Your task to perform on an android device: choose inbox layout in the gmail app Image 0: 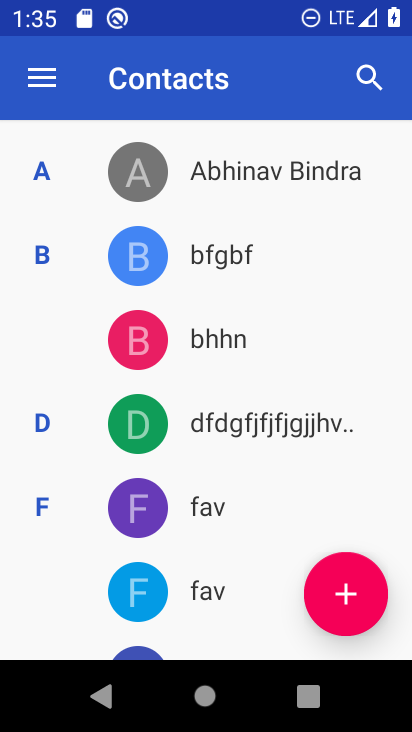
Step 0: press home button
Your task to perform on an android device: choose inbox layout in the gmail app Image 1: 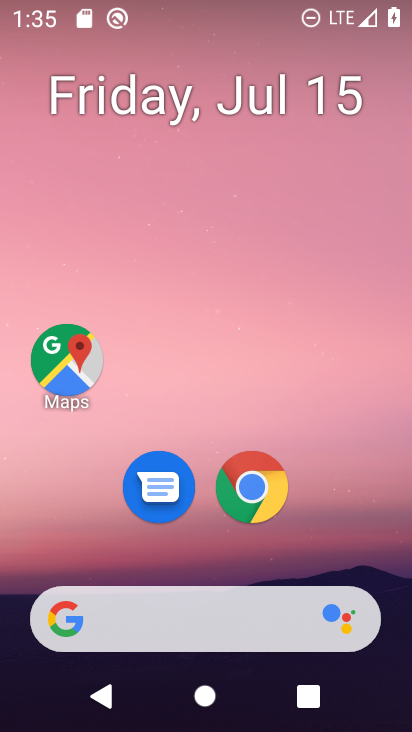
Step 1: drag from (217, 556) to (348, 74)
Your task to perform on an android device: choose inbox layout in the gmail app Image 2: 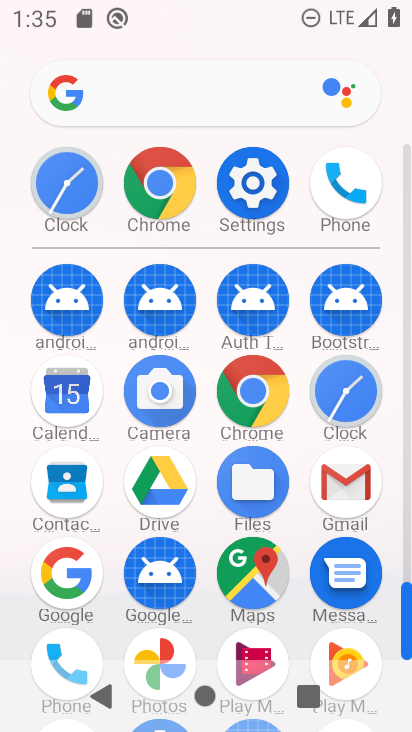
Step 2: click (334, 506)
Your task to perform on an android device: choose inbox layout in the gmail app Image 3: 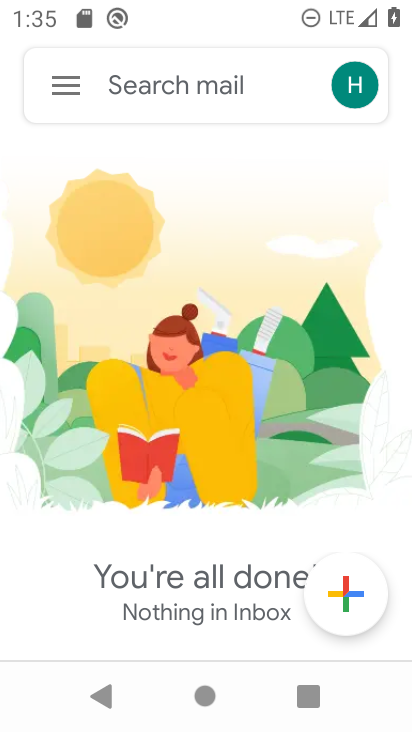
Step 3: click (58, 91)
Your task to perform on an android device: choose inbox layout in the gmail app Image 4: 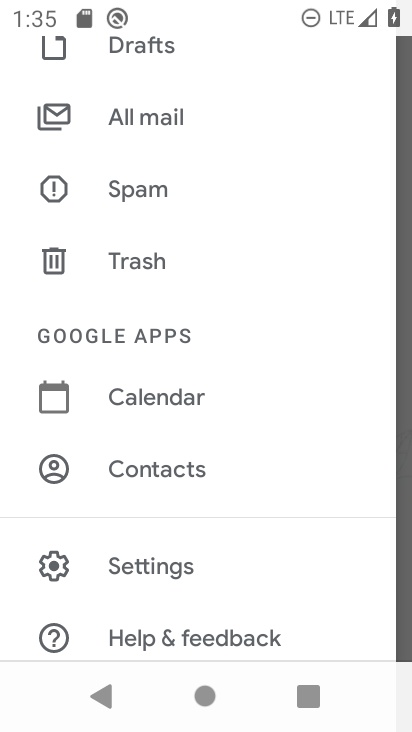
Step 4: click (109, 572)
Your task to perform on an android device: choose inbox layout in the gmail app Image 5: 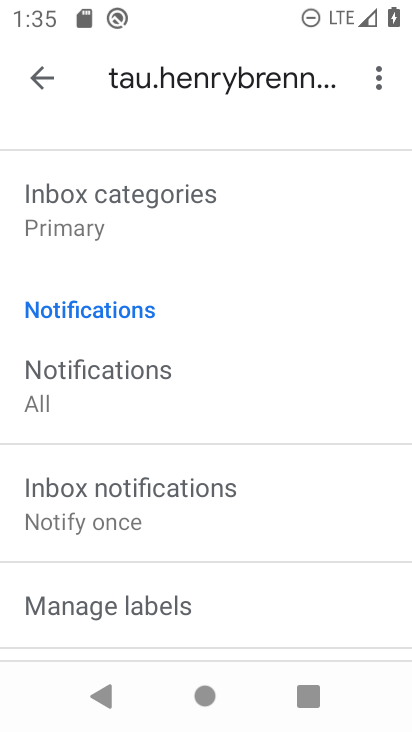
Step 5: task complete